Your task to perform on an android device: see creations saved in the google photos Image 0: 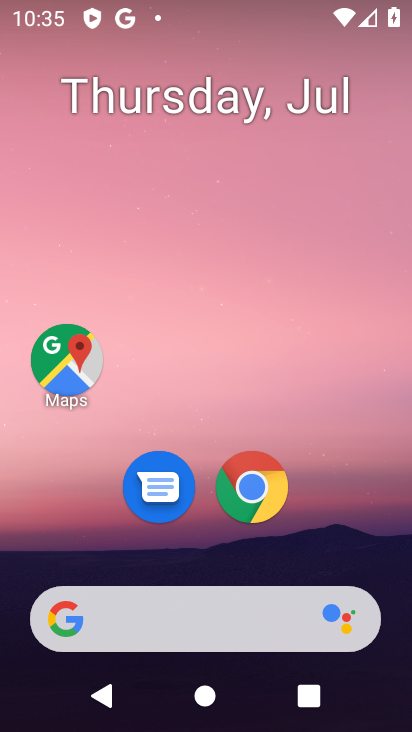
Step 0: drag from (212, 567) to (270, 14)
Your task to perform on an android device: see creations saved in the google photos Image 1: 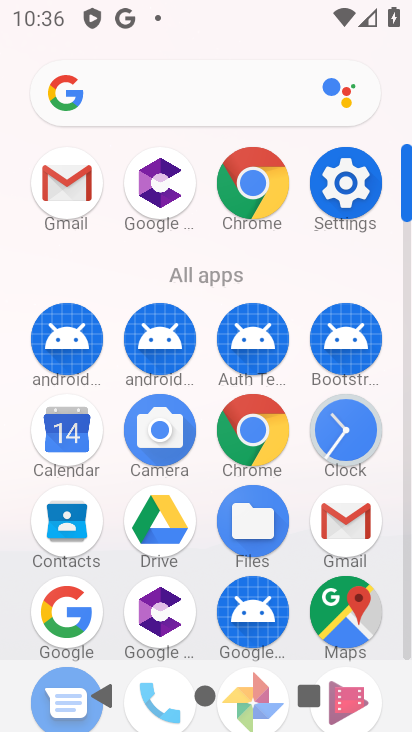
Step 1: drag from (217, 560) to (263, 101)
Your task to perform on an android device: see creations saved in the google photos Image 2: 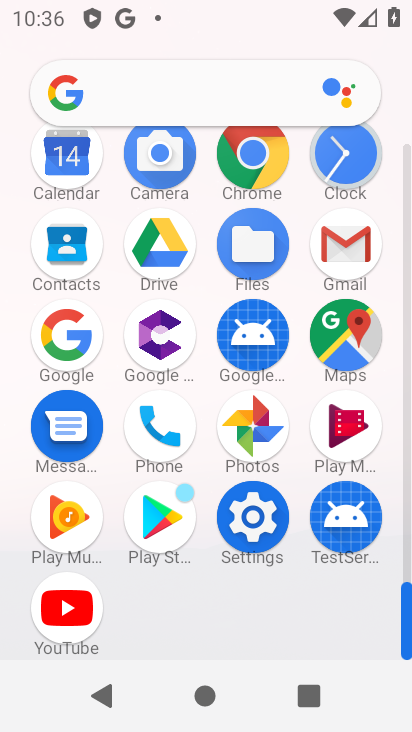
Step 2: click (251, 426)
Your task to perform on an android device: see creations saved in the google photos Image 3: 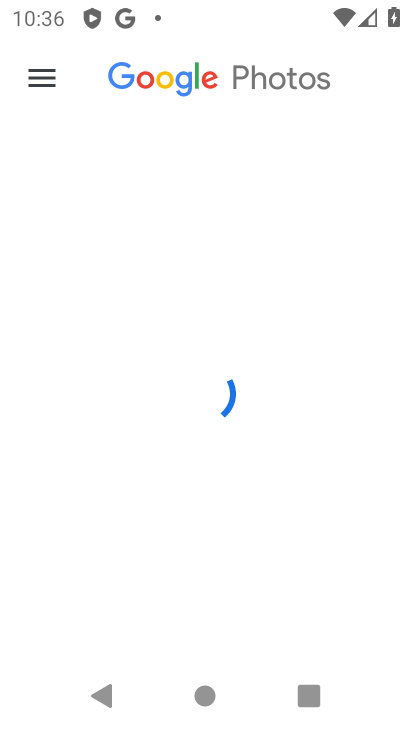
Step 3: click (56, 72)
Your task to perform on an android device: see creations saved in the google photos Image 4: 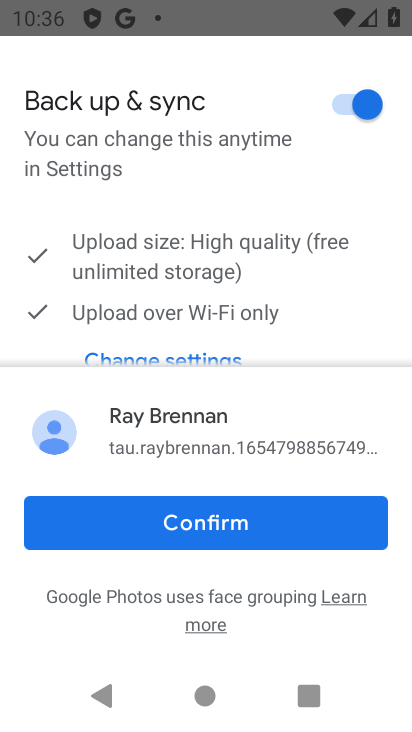
Step 4: click (240, 537)
Your task to perform on an android device: see creations saved in the google photos Image 5: 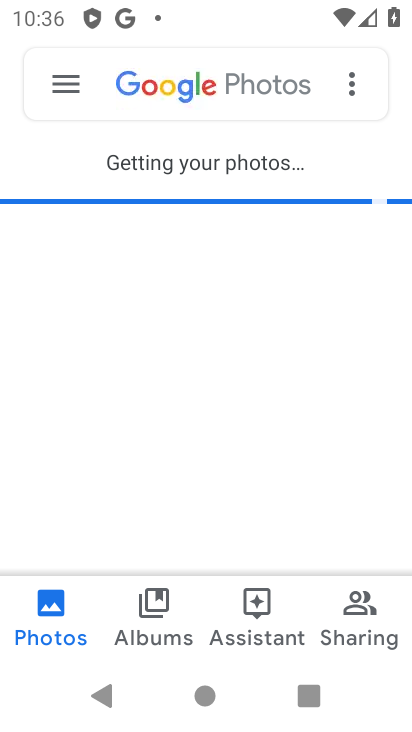
Step 5: click (75, 86)
Your task to perform on an android device: see creations saved in the google photos Image 6: 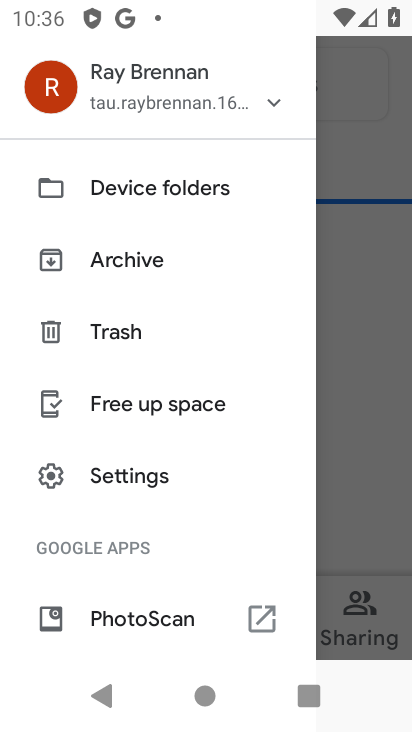
Step 6: click (168, 264)
Your task to perform on an android device: see creations saved in the google photos Image 7: 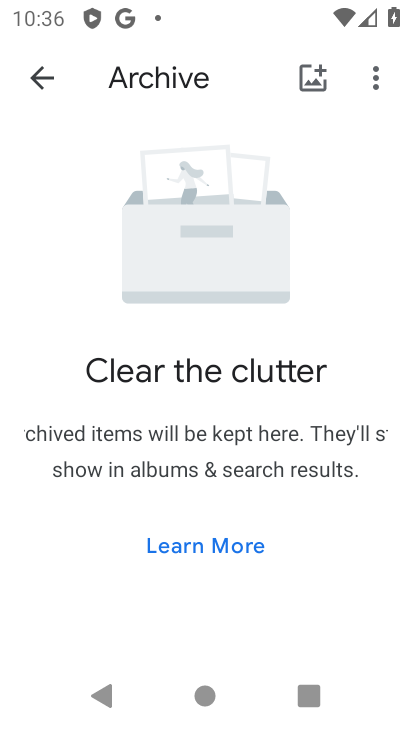
Step 7: task complete